Your task to perform on an android device: open the mobile data screen to see how much data has been used Image 0: 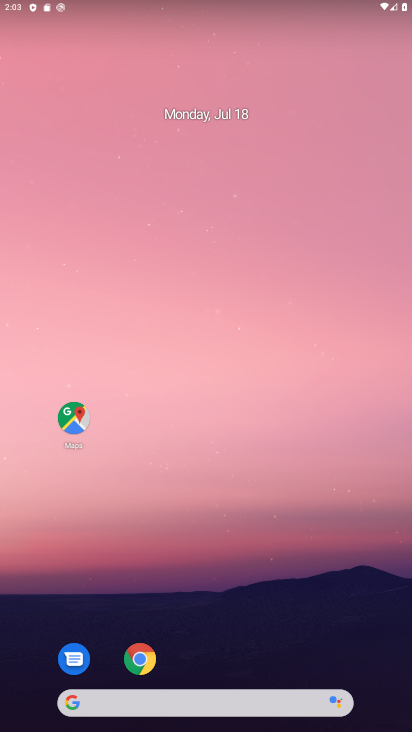
Step 0: drag from (184, 639) to (224, 157)
Your task to perform on an android device: open the mobile data screen to see how much data has been used Image 1: 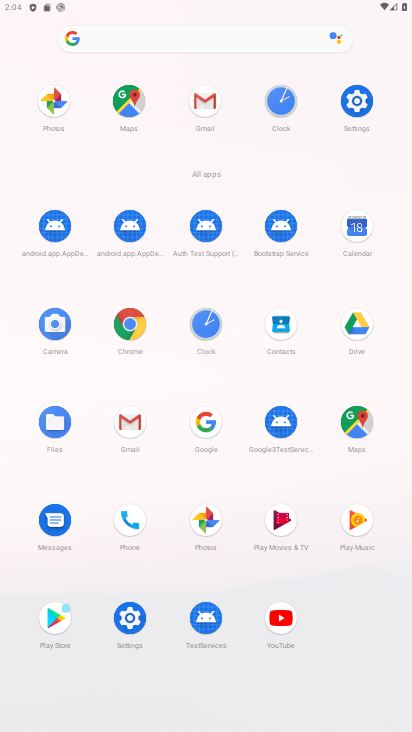
Step 1: click (130, 625)
Your task to perform on an android device: open the mobile data screen to see how much data has been used Image 2: 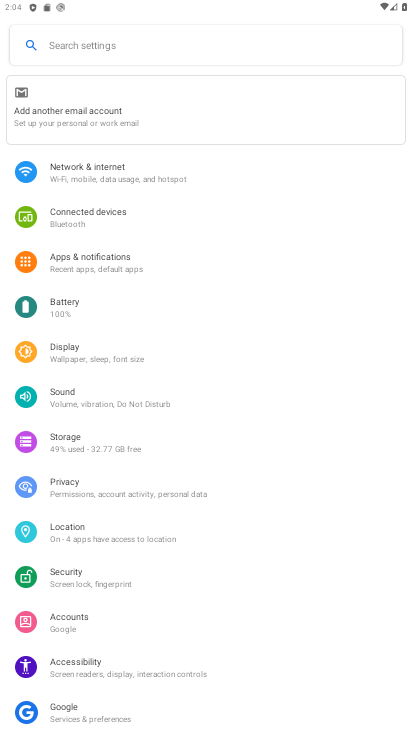
Step 2: click (150, 175)
Your task to perform on an android device: open the mobile data screen to see how much data has been used Image 3: 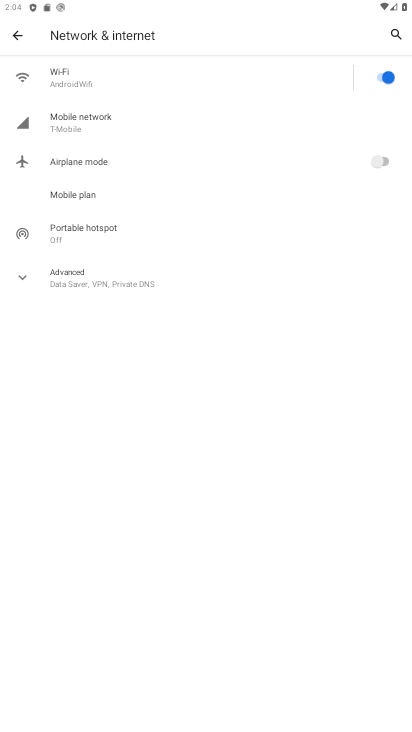
Step 3: click (135, 131)
Your task to perform on an android device: open the mobile data screen to see how much data has been used Image 4: 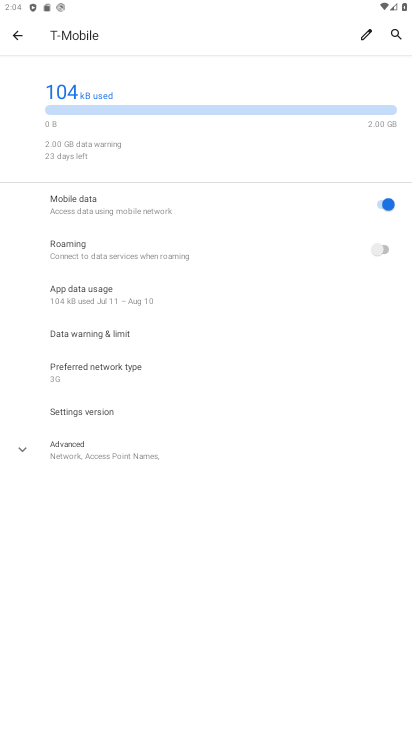
Step 4: task complete